Your task to perform on an android device: see creations saved in the google photos Image 0: 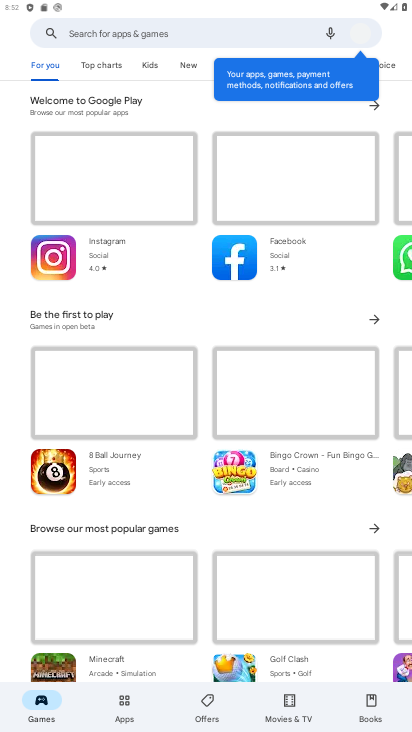
Step 0: press home button
Your task to perform on an android device: see creations saved in the google photos Image 1: 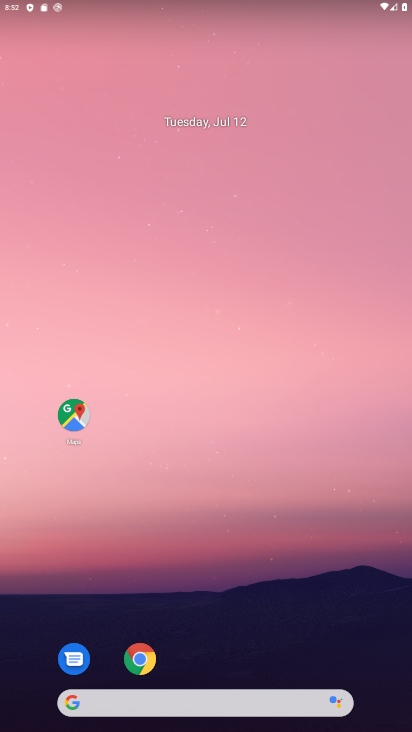
Step 1: drag from (186, 621) to (163, 48)
Your task to perform on an android device: see creations saved in the google photos Image 2: 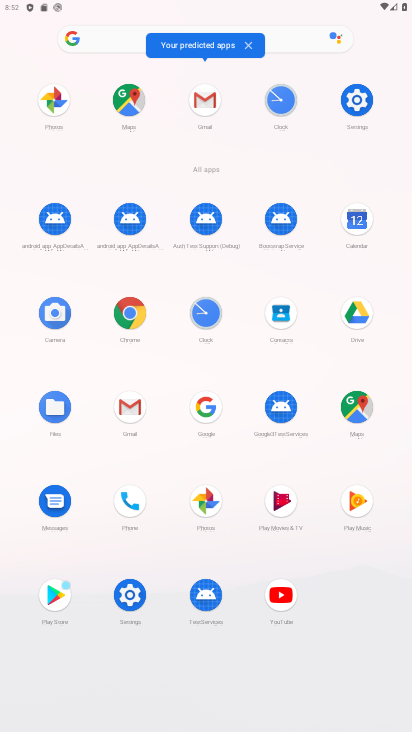
Step 2: click (200, 500)
Your task to perform on an android device: see creations saved in the google photos Image 3: 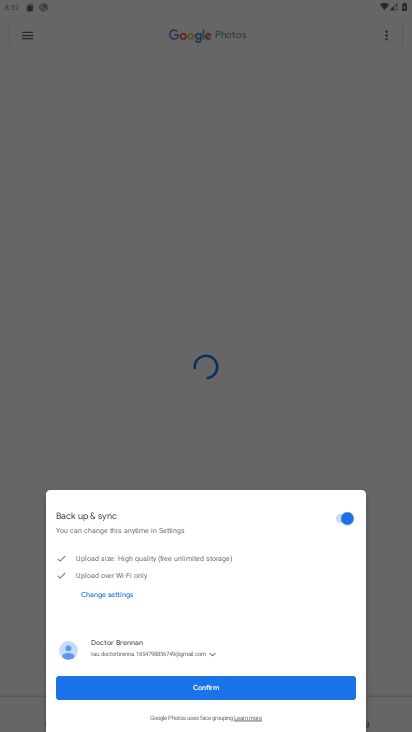
Step 3: click (294, 675)
Your task to perform on an android device: see creations saved in the google photos Image 4: 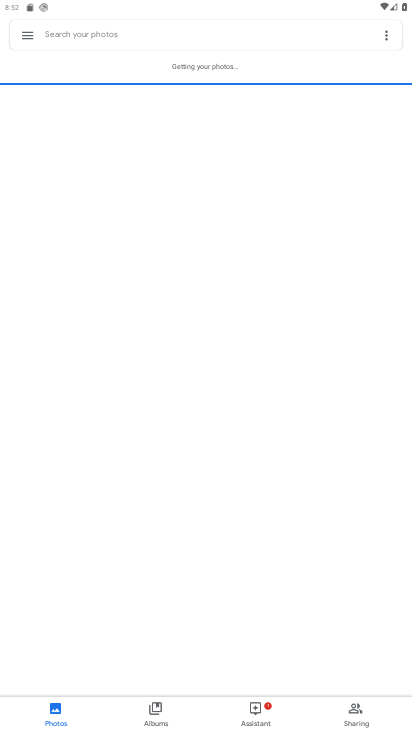
Step 4: click (139, 34)
Your task to perform on an android device: see creations saved in the google photos Image 5: 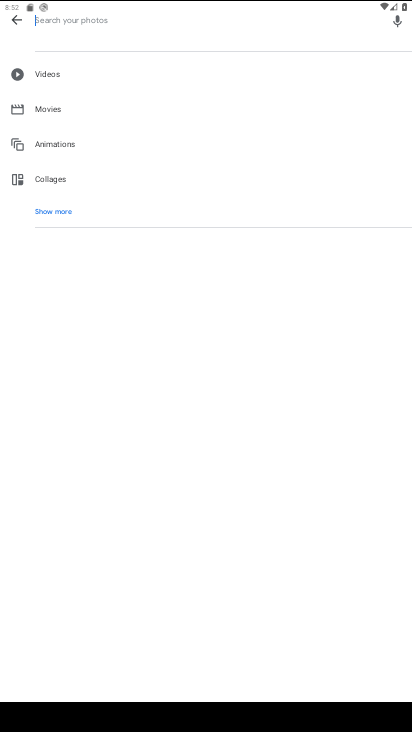
Step 5: click (75, 211)
Your task to perform on an android device: see creations saved in the google photos Image 6: 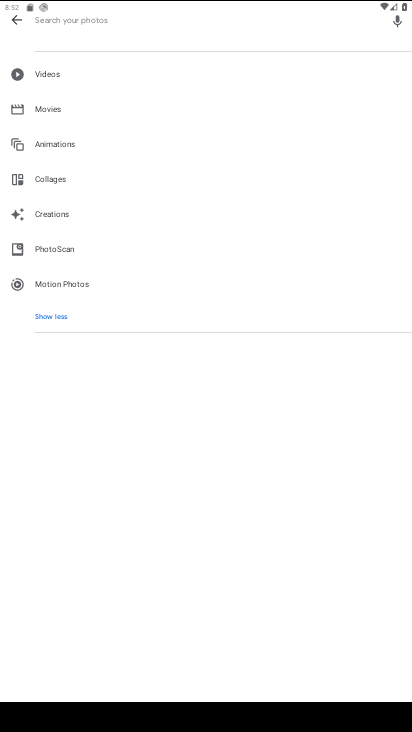
Step 6: click (39, 210)
Your task to perform on an android device: see creations saved in the google photos Image 7: 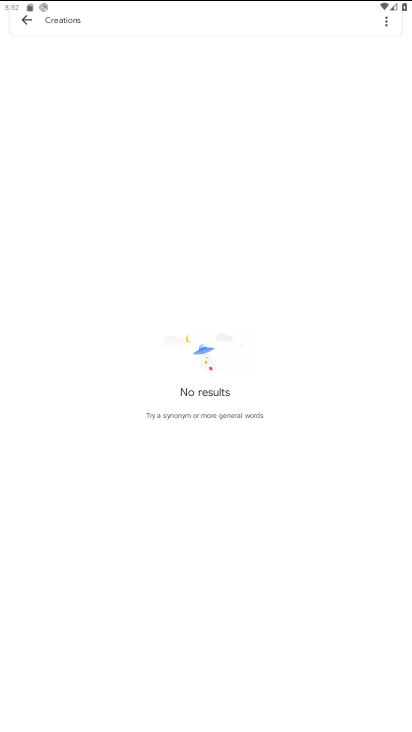
Step 7: task complete